Your task to perform on an android device: Search for the best lawnmowers on Lowes.com Image 0: 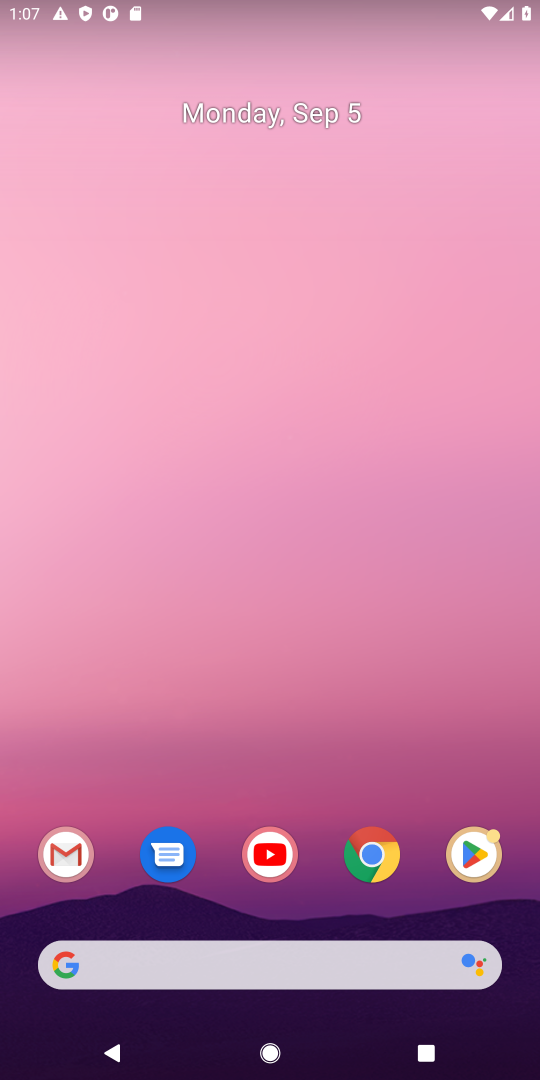
Step 0: click (378, 969)
Your task to perform on an android device: Search for the best lawnmowers on Lowes.com Image 1: 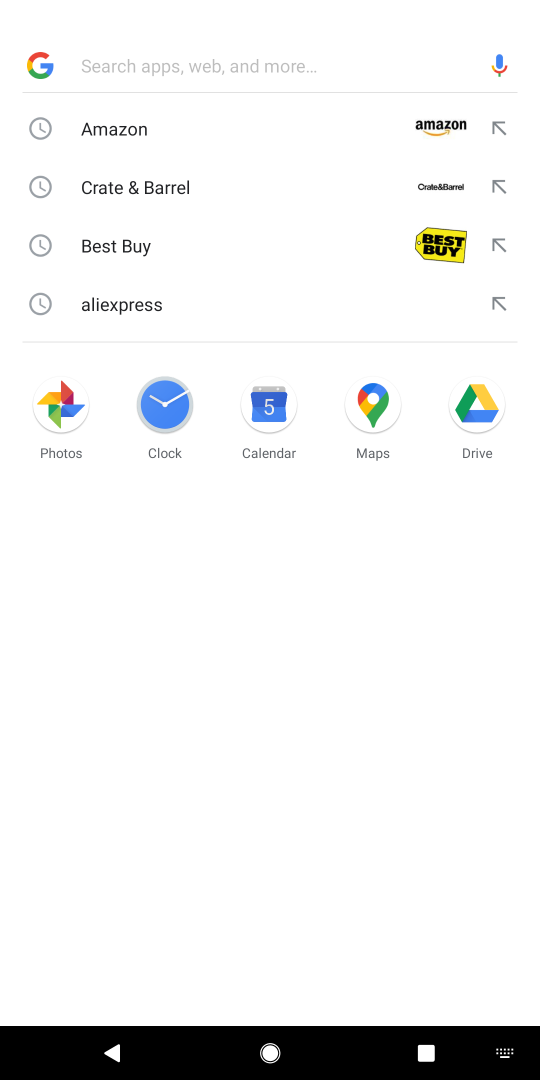
Step 1: type "lowes.com"
Your task to perform on an android device: Search for the best lawnmowers on Lowes.com Image 2: 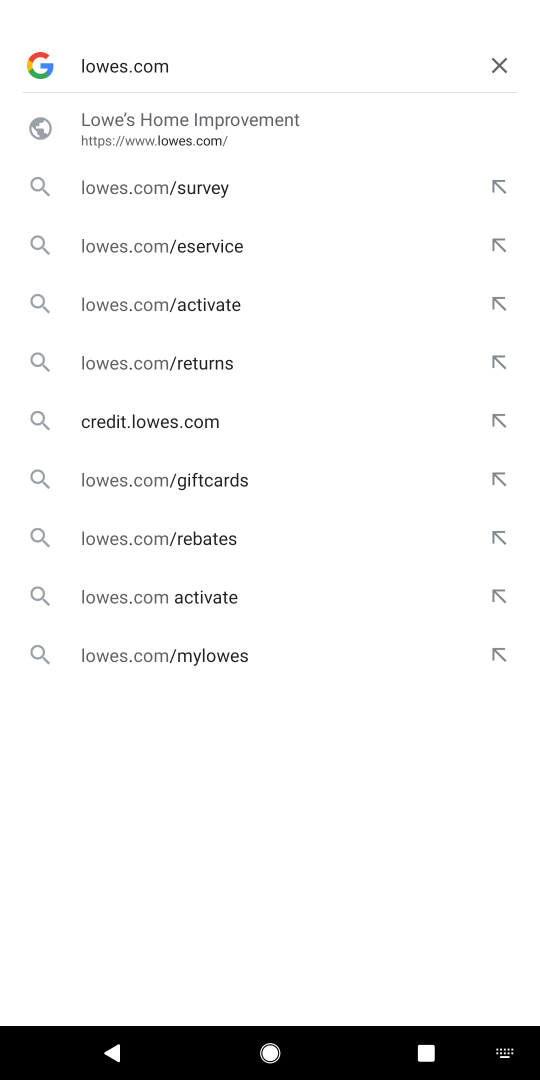
Step 2: press enter
Your task to perform on an android device: Search for the best lawnmowers on Lowes.com Image 3: 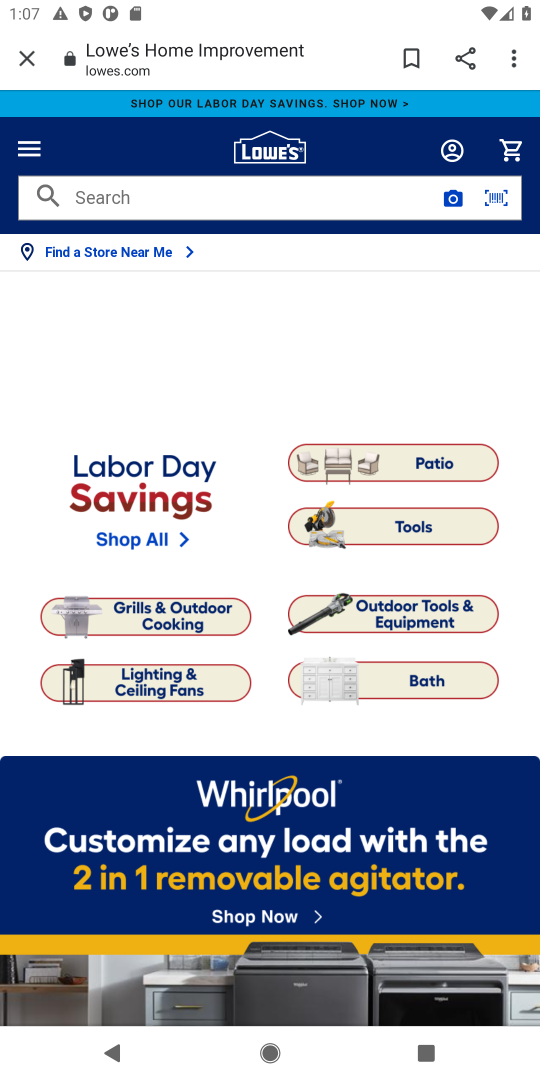
Step 3: click (114, 195)
Your task to perform on an android device: Search for the best lawnmowers on Lowes.com Image 4: 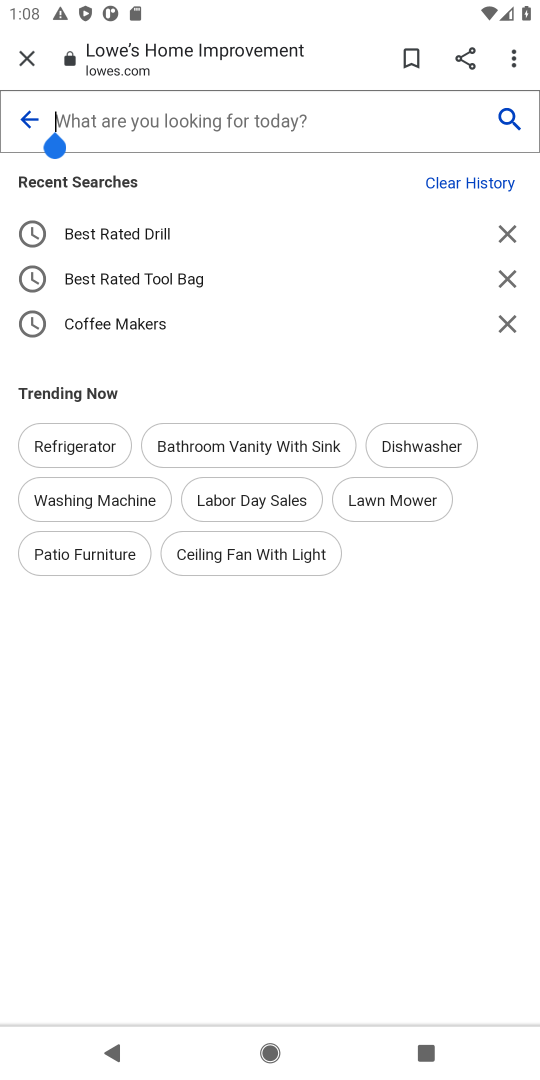
Step 4: type "best lawnmowers"
Your task to perform on an android device: Search for the best lawnmowers on Lowes.com Image 5: 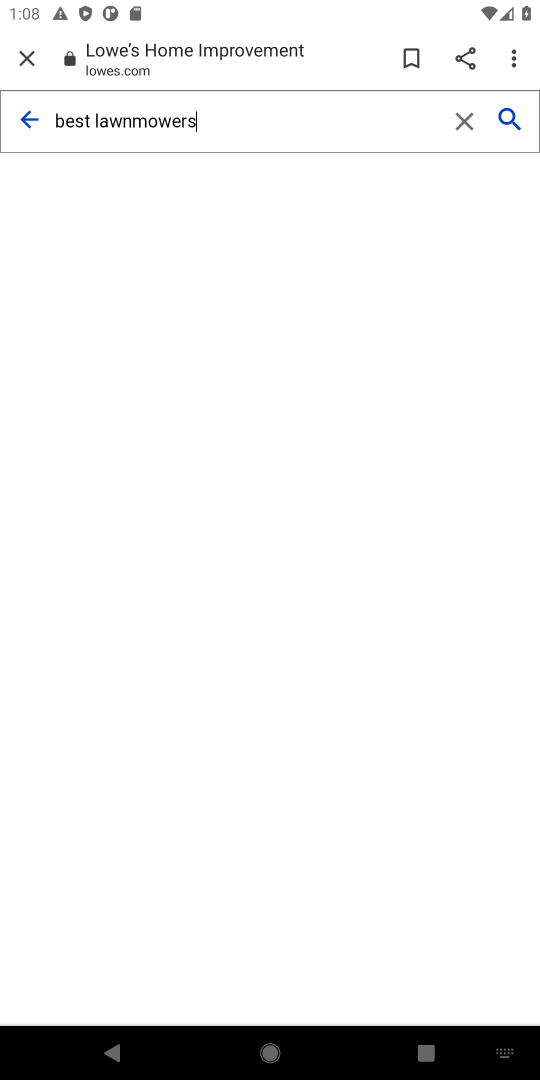
Step 5: press enter
Your task to perform on an android device: Search for the best lawnmowers on Lowes.com Image 6: 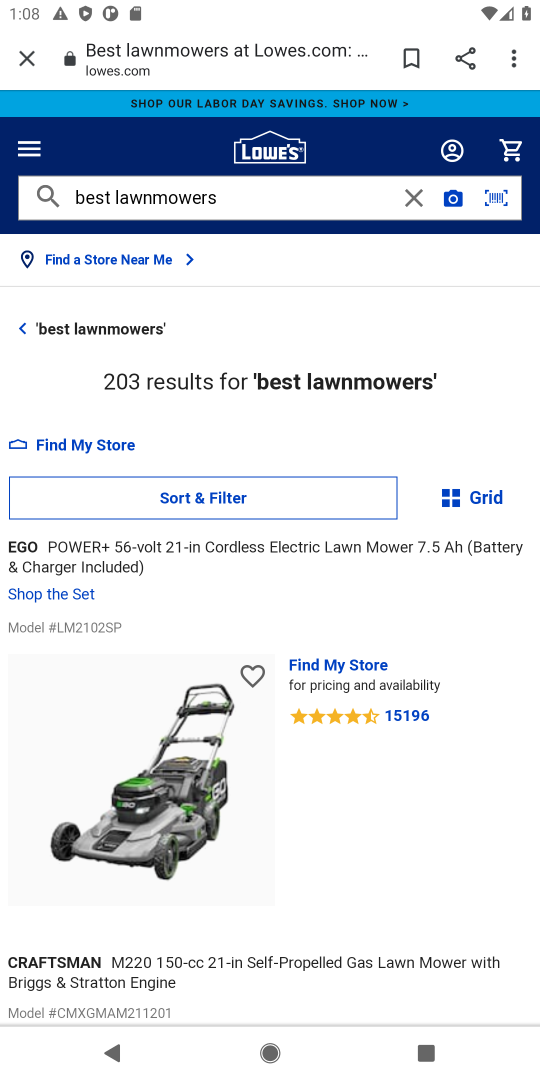
Step 6: task complete